Your task to perform on an android device: toggle location history Image 0: 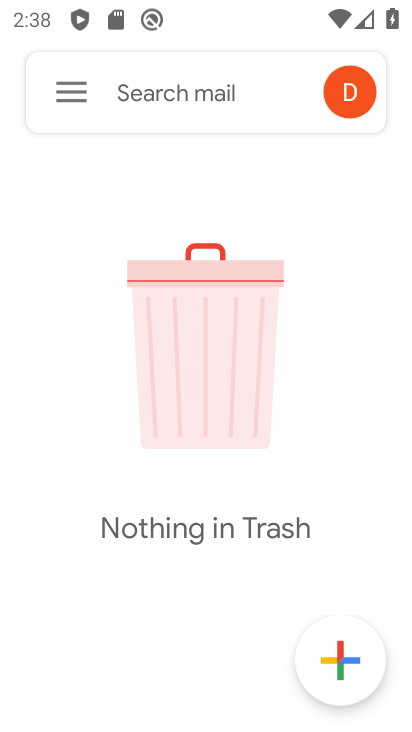
Step 0: press home button
Your task to perform on an android device: toggle location history Image 1: 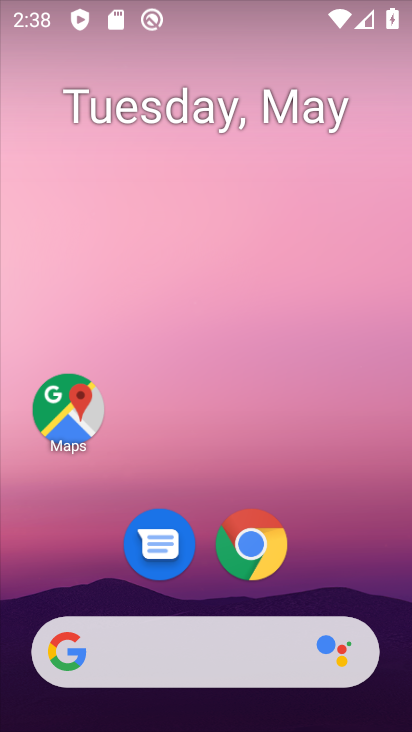
Step 1: drag from (333, 576) to (290, 113)
Your task to perform on an android device: toggle location history Image 2: 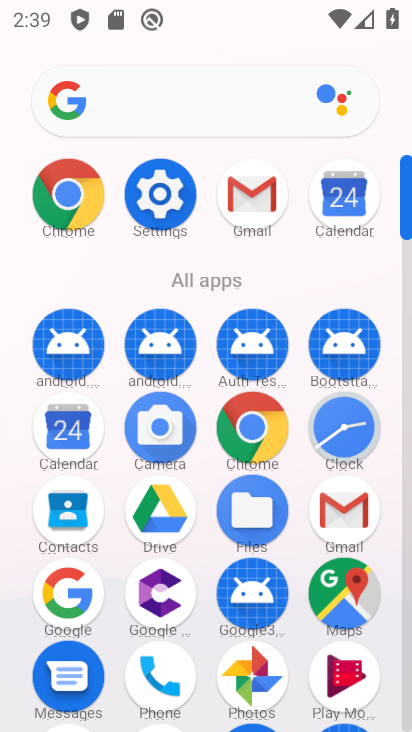
Step 2: click (161, 194)
Your task to perform on an android device: toggle location history Image 3: 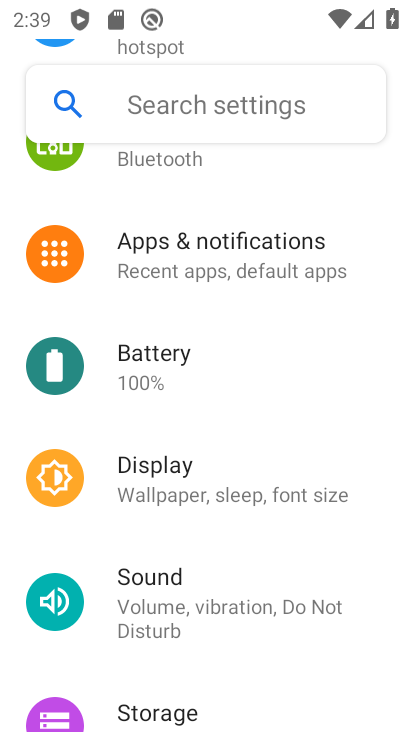
Step 3: drag from (239, 436) to (301, 313)
Your task to perform on an android device: toggle location history Image 4: 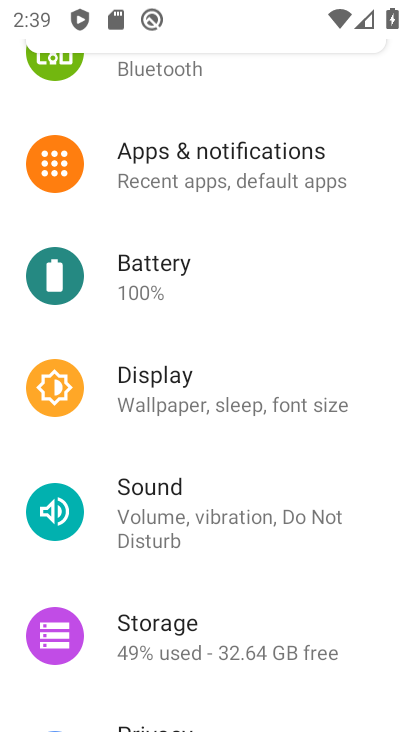
Step 4: drag from (198, 584) to (321, 333)
Your task to perform on an android device: toggle location history Image 5: 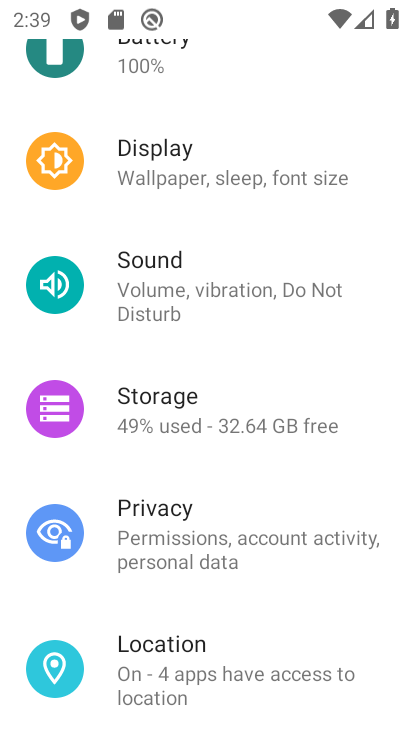
Step 5: drag from (240, 593) to (323, 439)
Your task to perform on an android device: toggle location history Image 6: 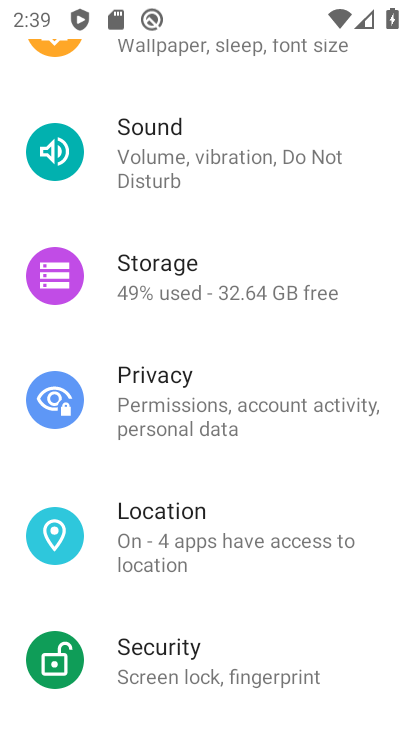
Step 6: click (147, 518)
Your task to perform on an android device: toggle location history Image 7: 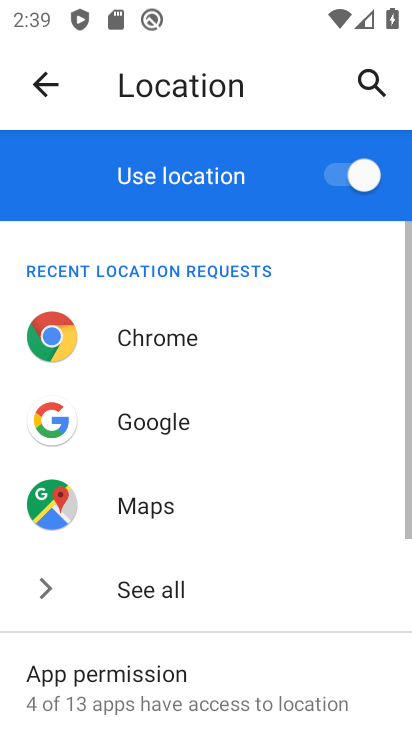
Step 7: drag from (202, 672) to (292, 511)
Your task to perform on an android device: toggle location history Image 8: 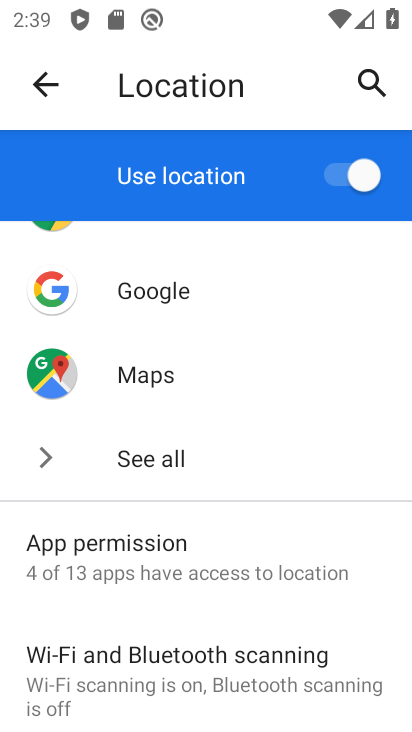
Step 8: drag from (155, 620) to (256, 472)
Your task to perform on an android device: toggle location history Image 9: 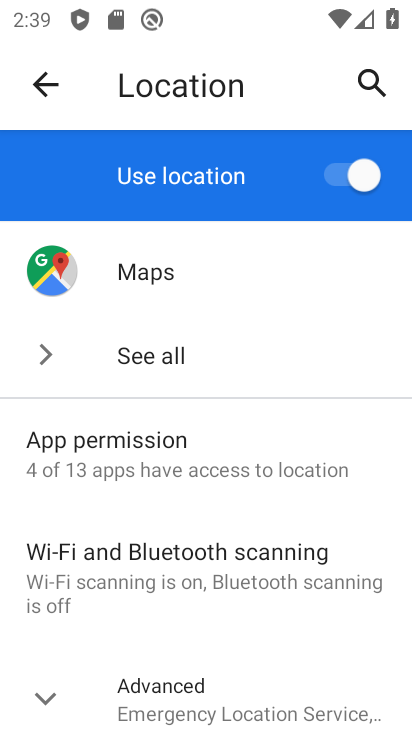
Step 9: click (196, 694)
Your task to perform on an android device: toggle location history Image 10: 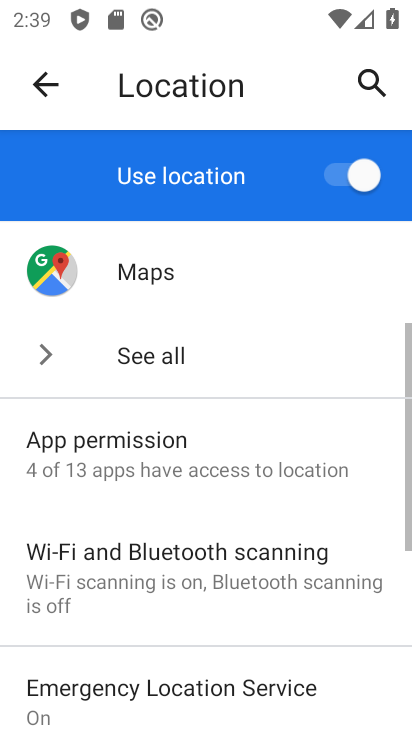
Step 10: drag from (188, 629) to (313, 325)
Your task to perform on an android device: toggle location history Image 11: 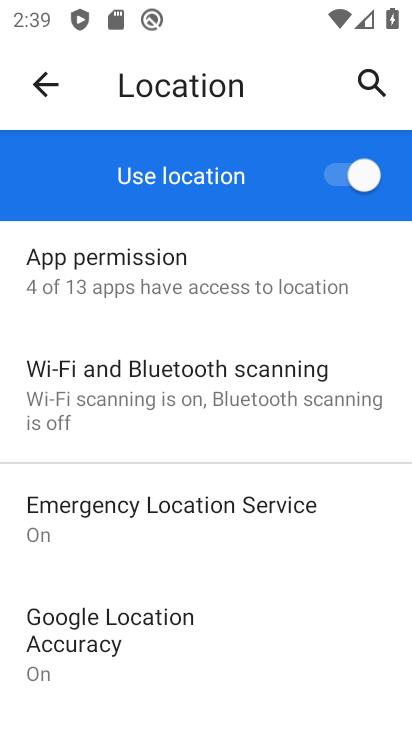
Step 11: drag from (196, 667) to (305, 502)
Your task to perform on an android device: toggle location history Image 12: 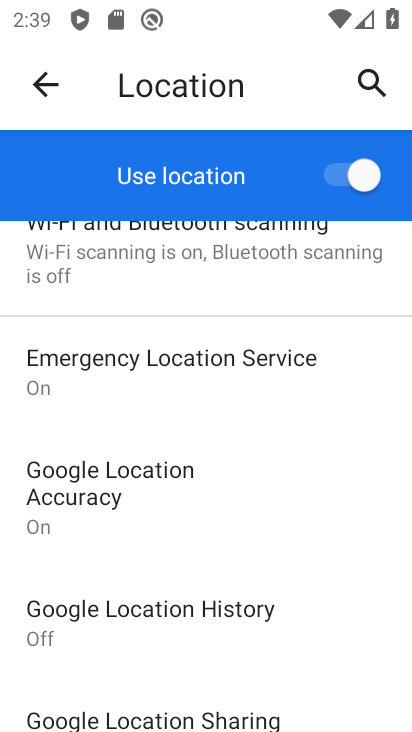
Step 12: click (195, 609)
Your task to perform on an android device: toggle location history Image 13: 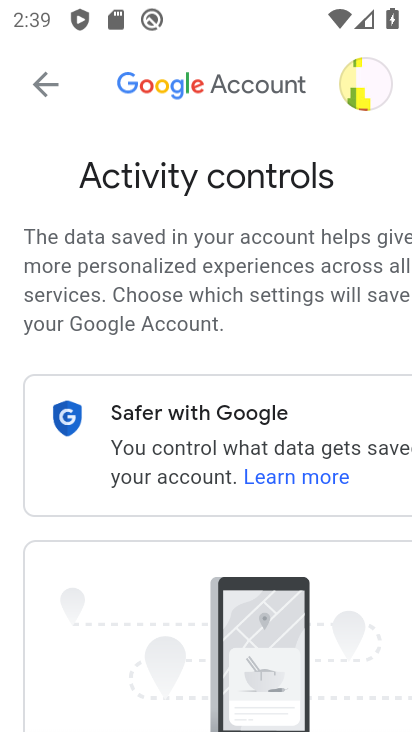
Step 13: drag from (102, 627) to (242, 429)
Your task to perform on an android device: toggle location history Image 14: 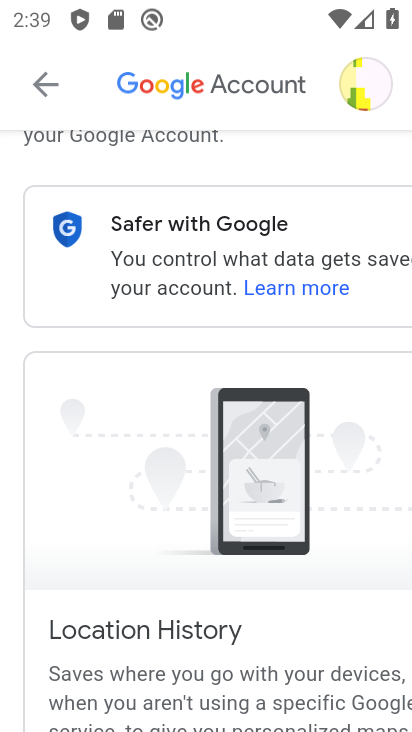
Step 14: drag from (188, 676) to (277, 438)
Your task to perform on an android device: toggle location history Image 15: 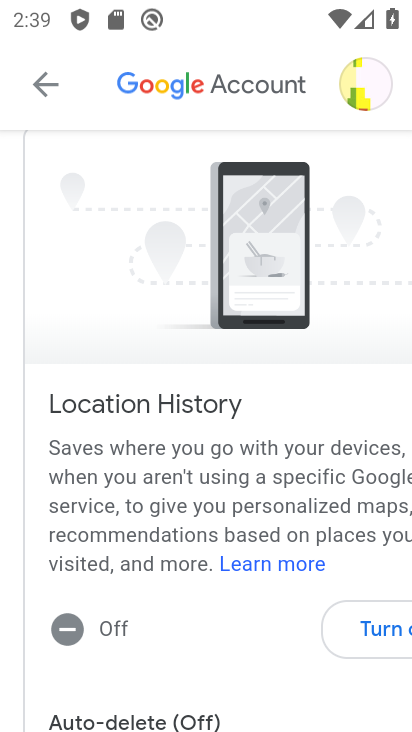
Step 15: click (367, 622)
Your task to perform on an android device: toggle location history Image 16: 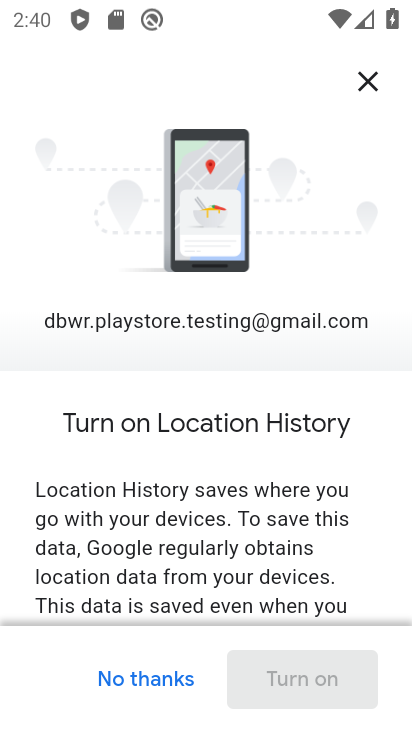
Step 16: drag from (254, 575) to (304, 428)
Your task to perform on an android device: toggle location history Image 17: 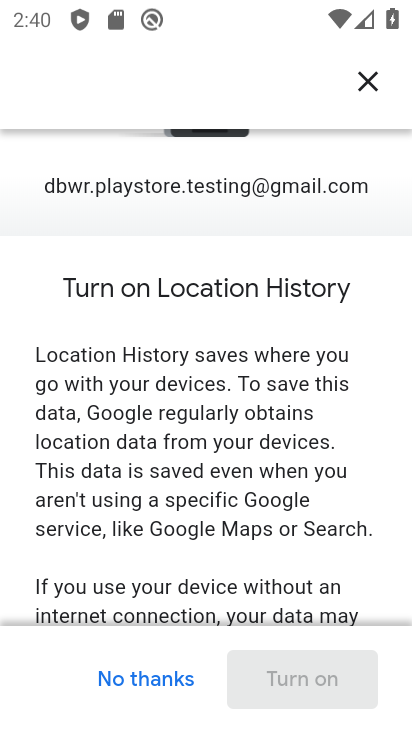
Step 17: drag from (242, 565) to (282, 459)
Your task to perform on an android device: toggle location history Image 18: 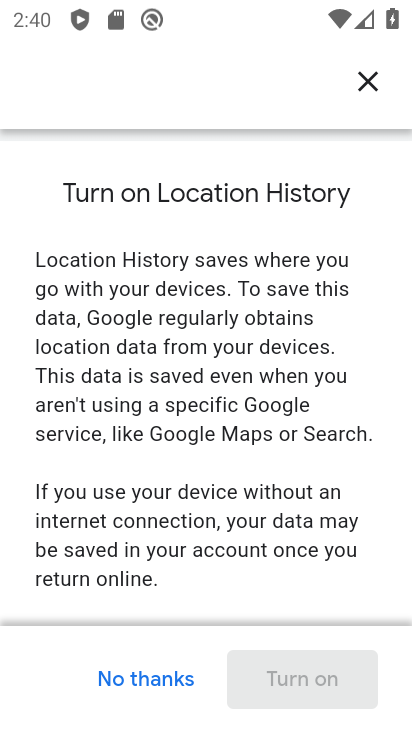
Step 18: drag from (225, 564) to (260, 419)
Your task to perform on an android device: toggle location history Image 19: 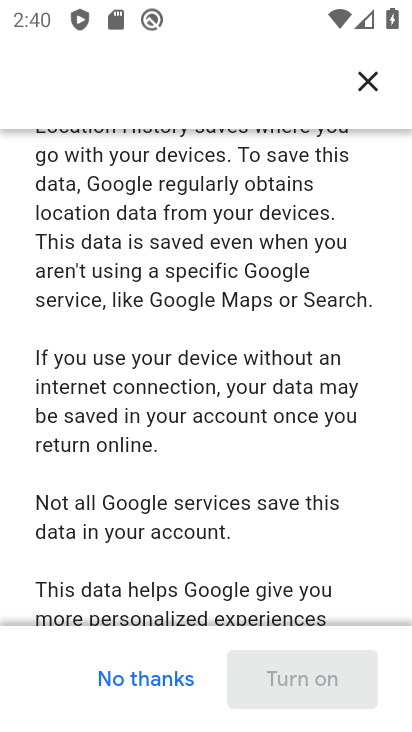
Step 19: drag from (246, 542) to (299, 430)
Your task to perform on an android device: toggle location history Image 20: 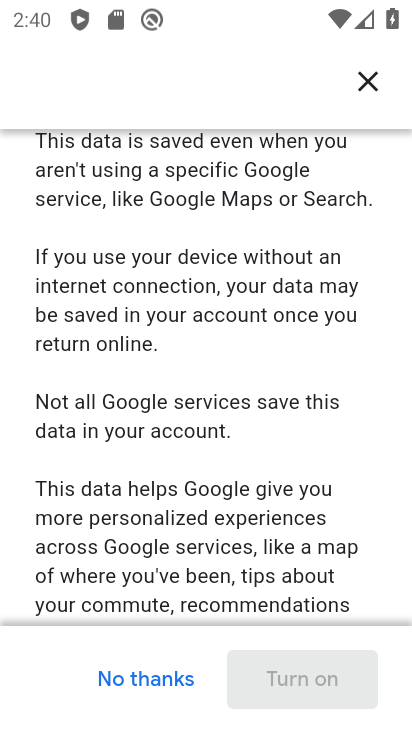
Step 20: drag from (253, 553) to (298, 448)
Your task to perform on an android device: toggle location history Image 21: 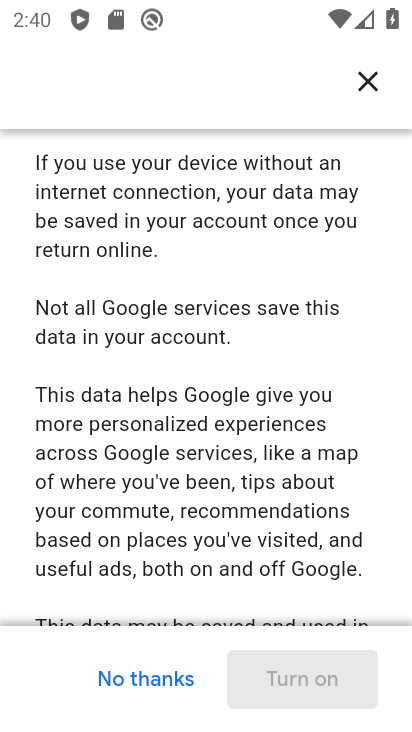
Step 21: drag from (259, 543) to (281, 440)
Your task to perform on an android device: toggle location history Image 22: 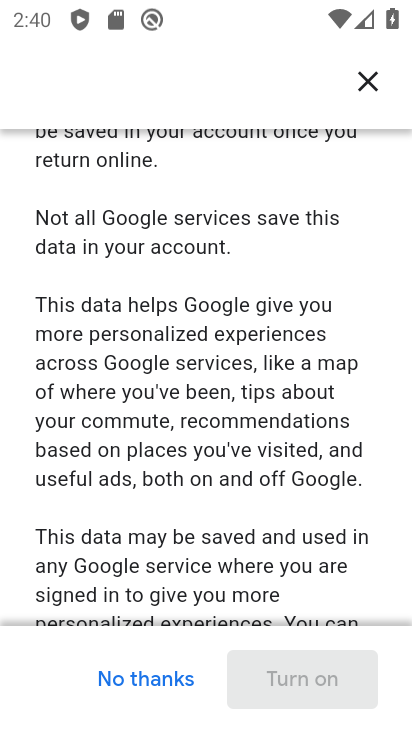
Step 22: drag from (262, 561) to (321, 460)
Your task to perform on an android device: toggle location history Image 23: 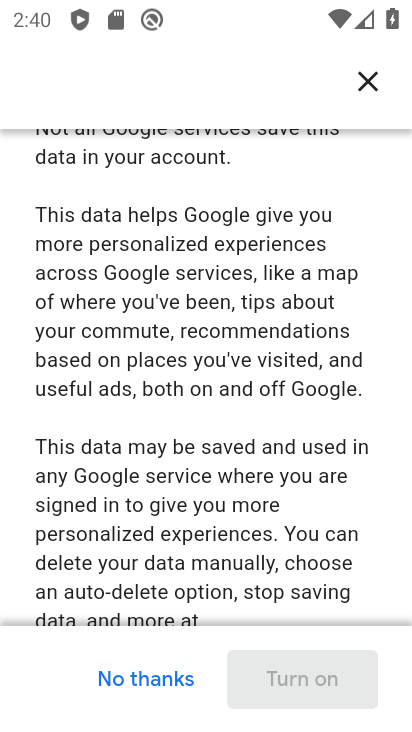
Step 23: drag from (275, 561) to (344, 446)
Your task to perform on an android device: toggle location history Image 24: 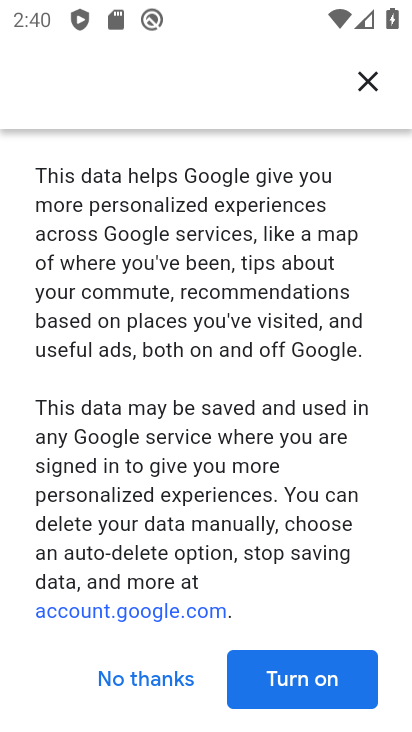
Step 24: click (304, 679)
Your task to perform on an android device: toggle location history Image 25: 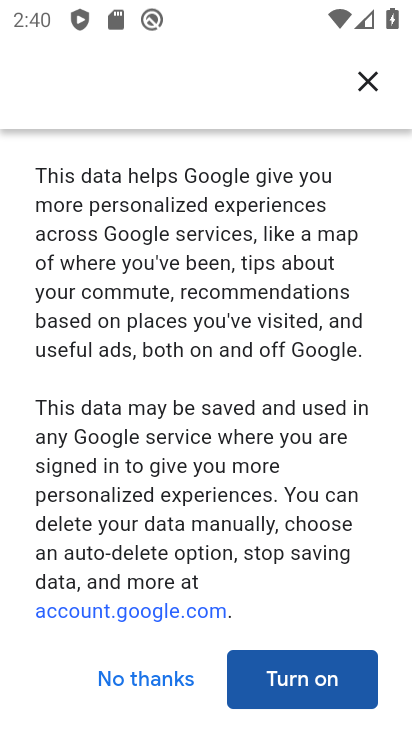
Step 25: click (304, 679)
Your task to perform on an android device: toggle location history Image 26: 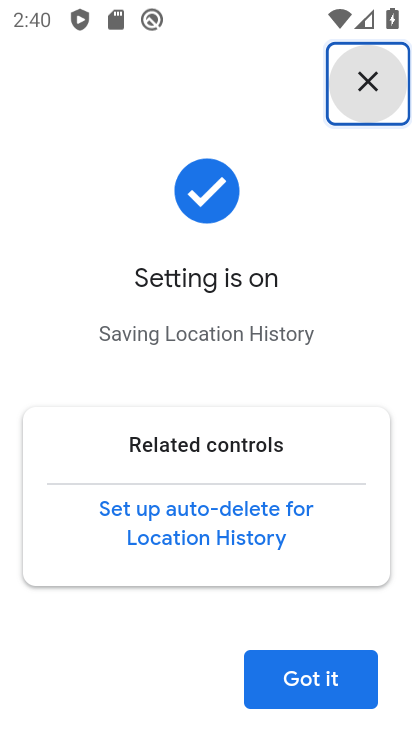
Step 26: click (304, 679)
Your task to perform on an android device: toggle location history Image 27: 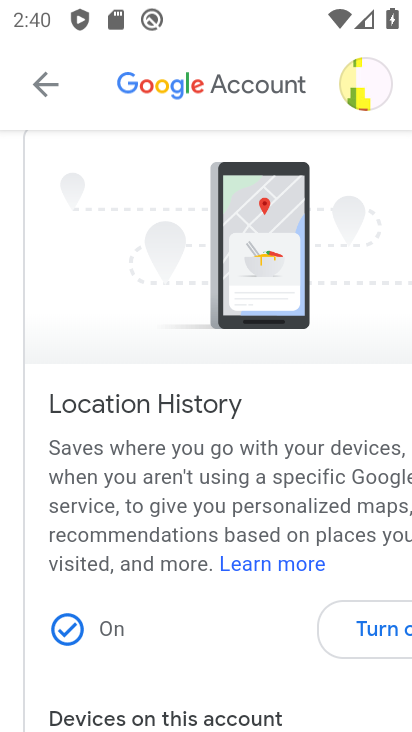
Step 27: task complete